Your task to perform on an android device: Go to Amazon Image 0: 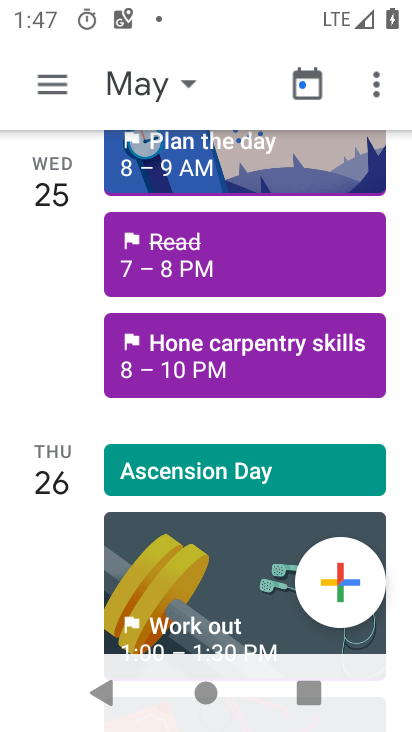
Step 0: press home button
Your task to perform on an android device: Go to Amazon Image 1: 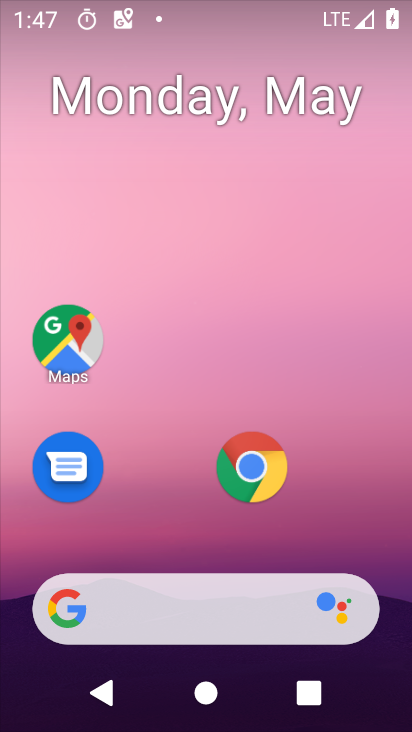
Step 1: drag from (195, 514) to (3, 65)
Your task to perform on an android device: Go to Amazon Image 2: 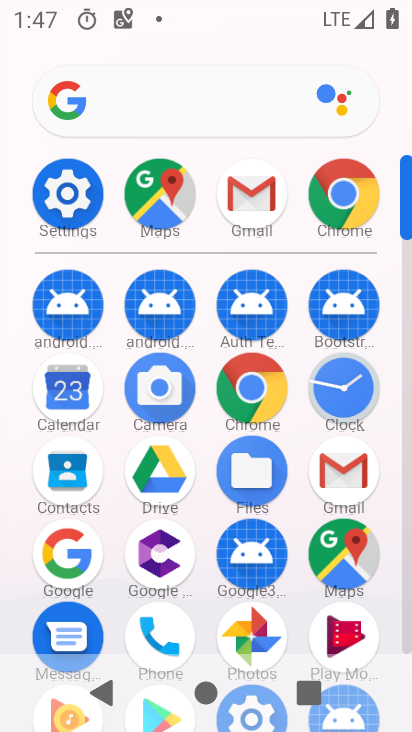
Step 2: click (340, 198)
Your task to perform on an android device: Go to Amazon Image 3: 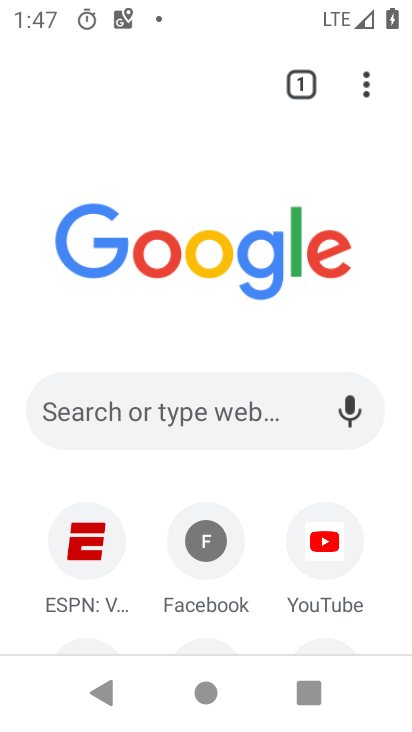
Step 3: drag from (257, 625) to (283, 224)
Your task to perform on an android device: Go to Amazon Image 4: 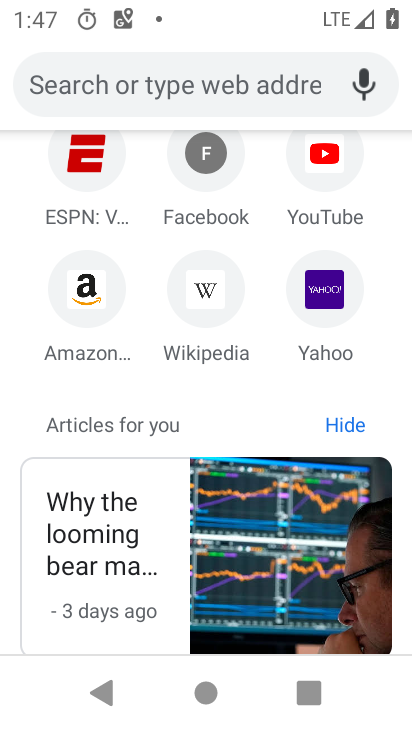
Step 4: click (77, 297)
Your task to perform on an android device: Go to Amazon Image 5: 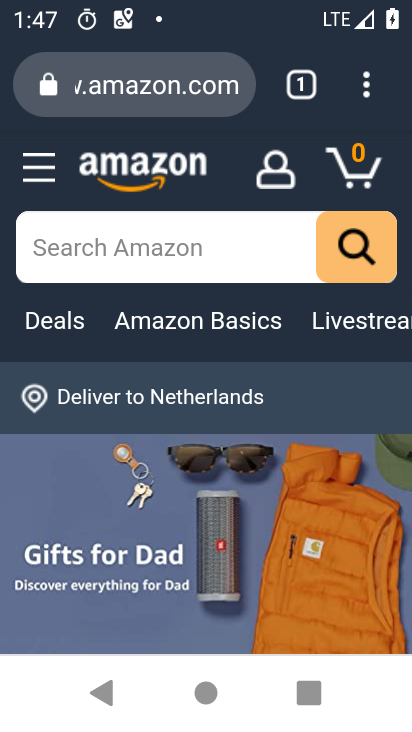
Step 5: task complete